Your task to perform on an android device: Open location settings Image 0: 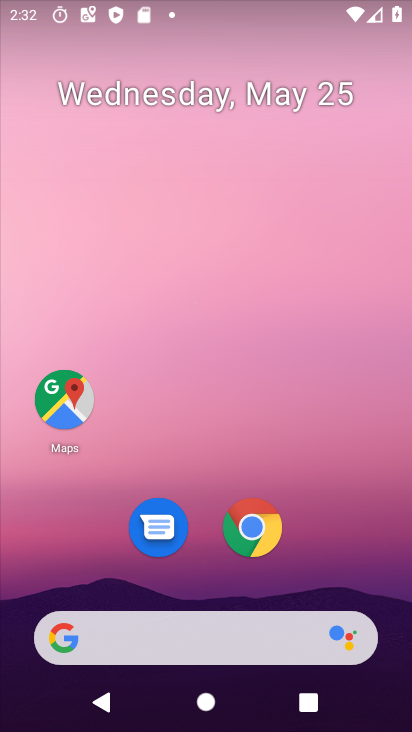
Step 0: click (373, 105)
Your task to perform on an android device: Open location settings Image 1: 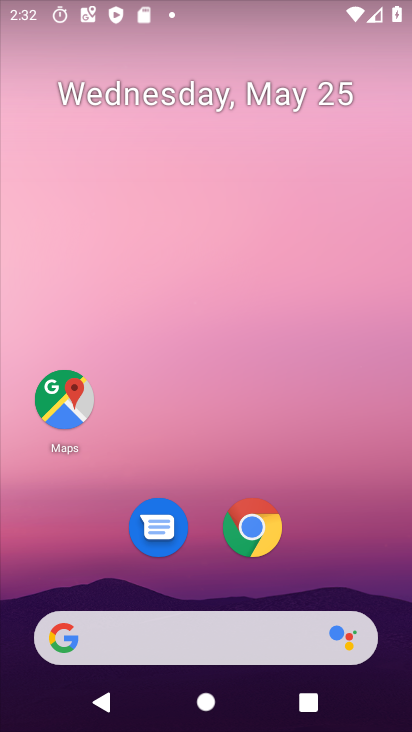
Step 1: drag from (210, 559) to (266, 354)
Your task to perform on an android device: Open location settings Image 2: 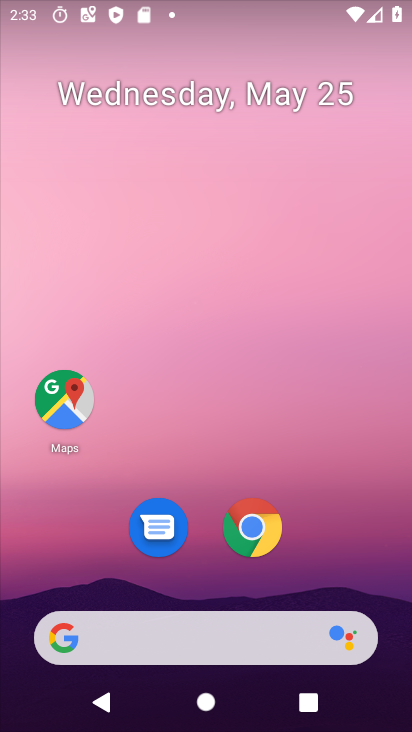
Step 2: drag from (199, 565) to (208, 202)
Your task to perform on an android device: Open location settings Image 3: 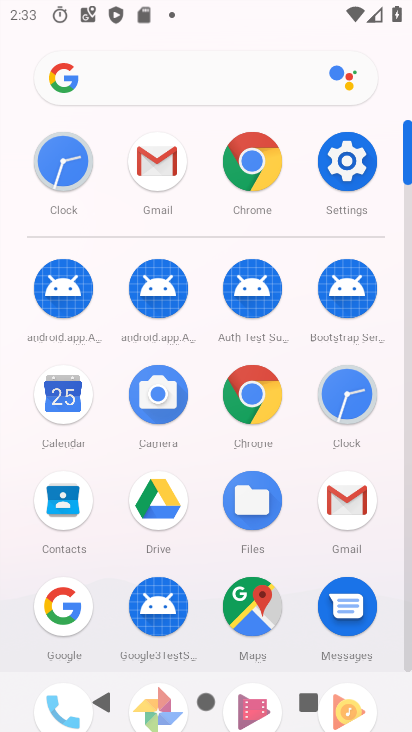
Step 3: click (344, 164)
Your task to perform on an android device: Open location settings Image 4: 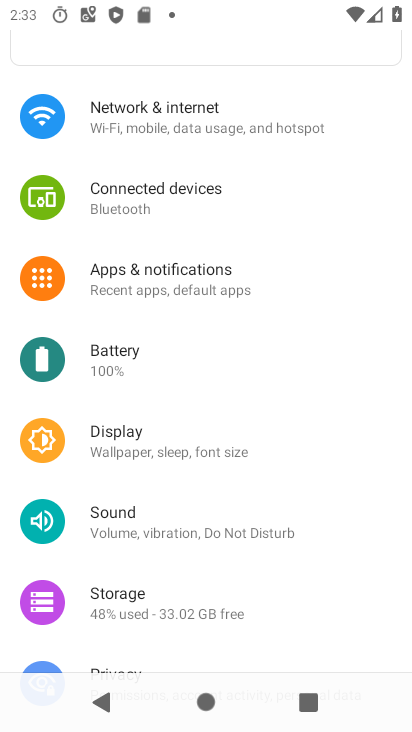
Step 4: drag from (208, 563) to (316, 65)
Your task to perform on an android device: Open location settings Image 5: 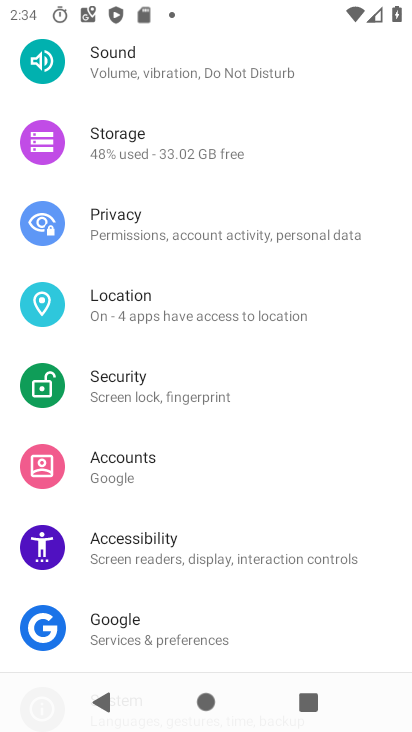
Step 5: click (181, 303)
Your task to perform on an android device: Open location settings Image 6: 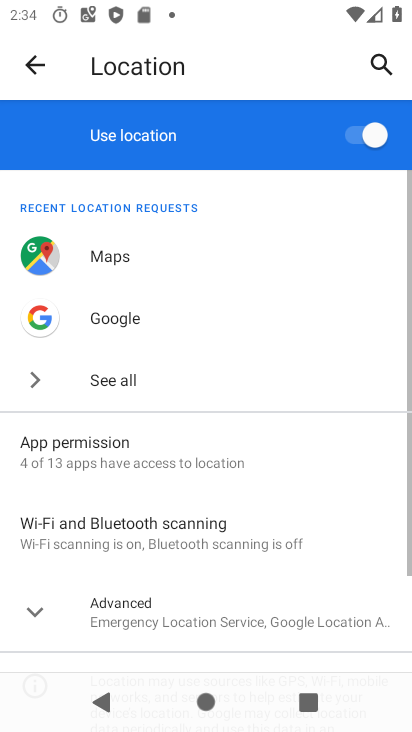
Step 6: drag from (209, 530) to (337, 138)
Your task to perform on an android device: Open location settings Image 7: 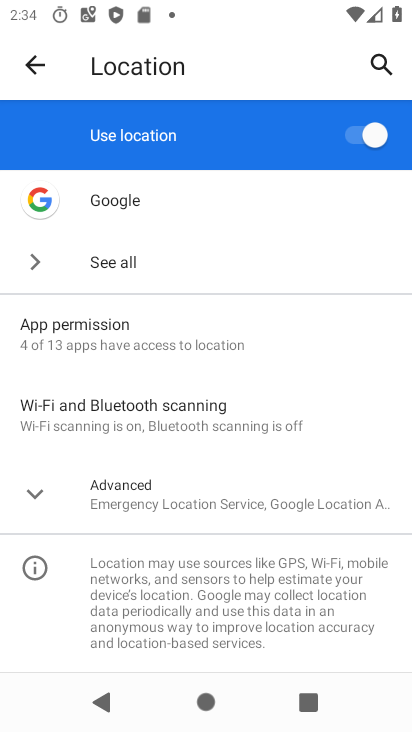
Step 7: click (169, 491)
Your task to perform on an android device: Open location settings Image 8: 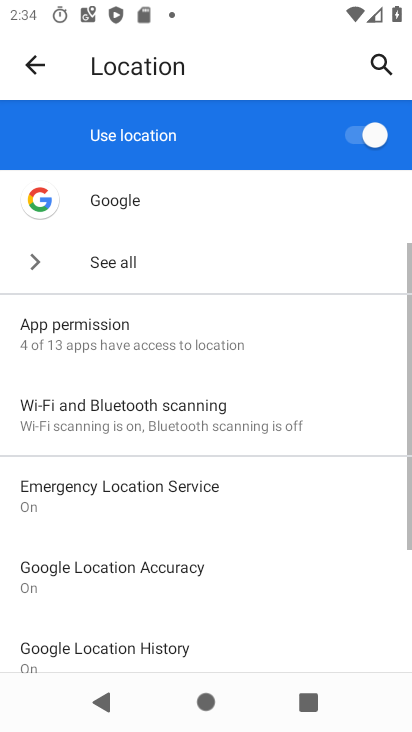
Step 8: drag from (182, 531) to (264, 217)
Your task to perform on an android device: Open location settings Image 9: 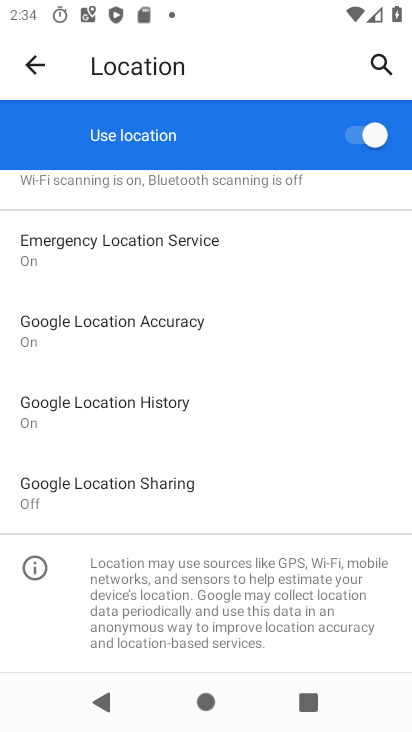
Step 9: click (114, 340)
Your task to perform on an android device: Open location settings Image 10: 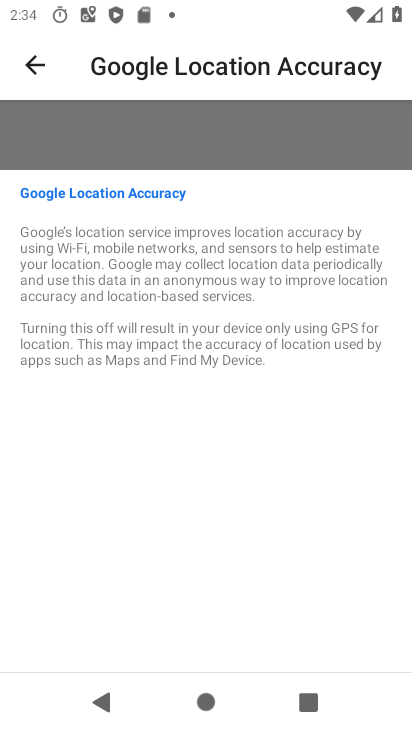
Step 10: drag from (236, 516) to (265, 213)
Your task to perform on an android device: Open location settings Image 11: 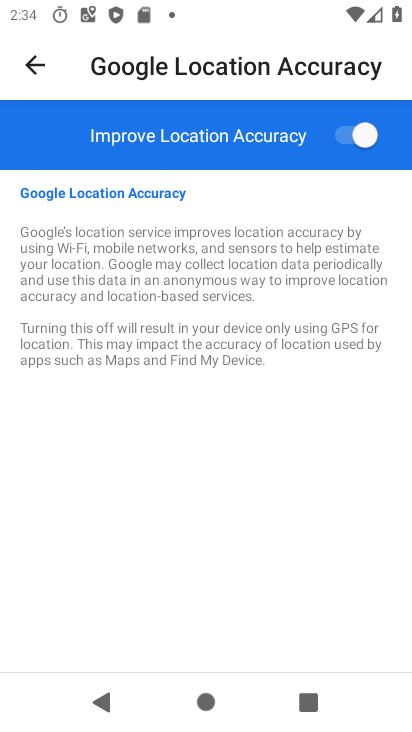
Step 11: drag from (274, 562) to (308, 263)
Your task to perform on an android device: Open location settings Image 12: 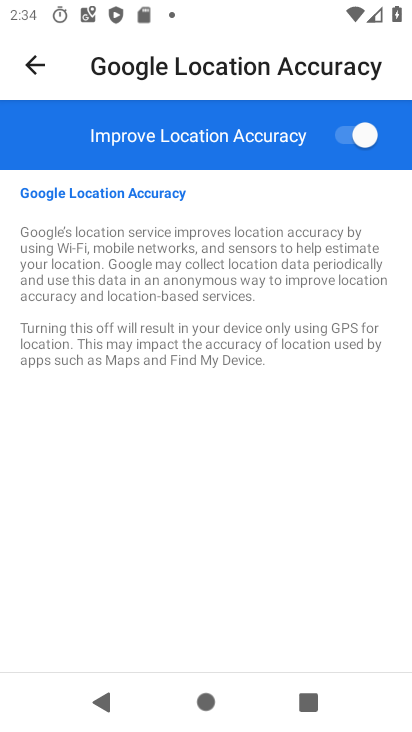
Step 12: drag from (190, 605) to (269, 358)
Your task to perform on an android device: Open location settings Image 13: 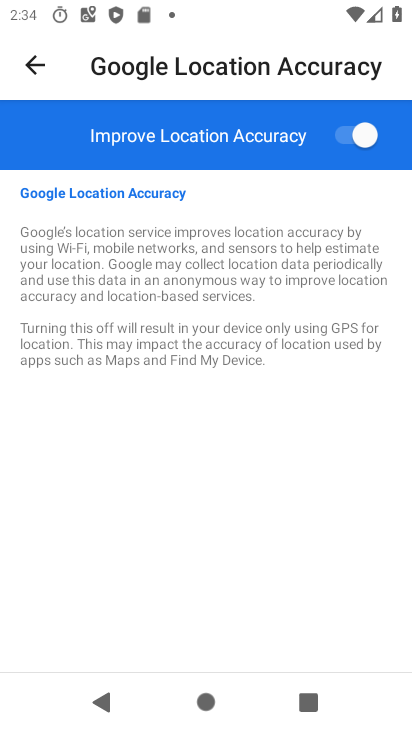
Step 13: click (47, 72)
Your task to perform on an android device: Open location settings Image 14: 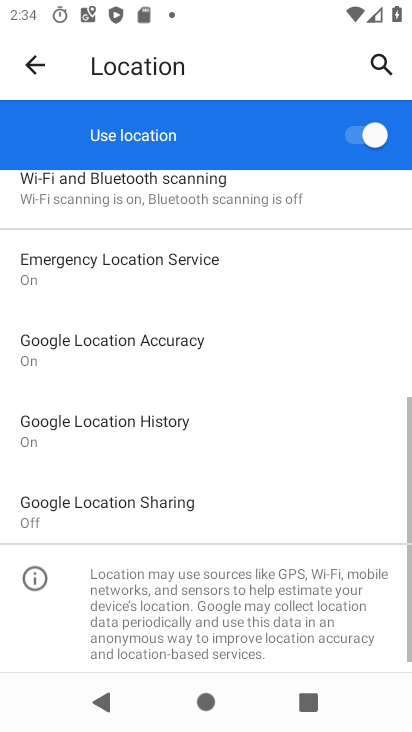
Step 14: task complete